Your task to perform on an android device: Go to sound settings Image 0: 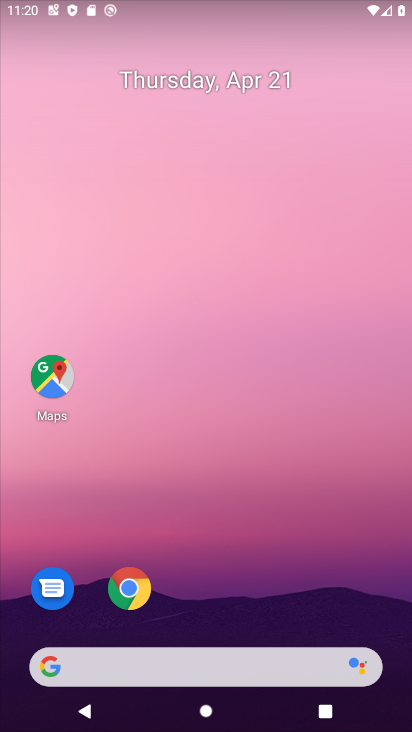
Step 0: drag from (190, 635) to (284, 94)
Your task to perform on an android device: Go to sound settings Image 1: 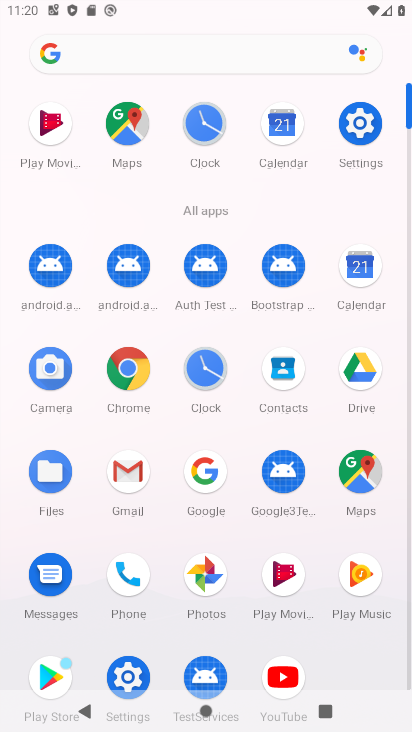
Step 1: click (354, 139)
Your task to perform on an android device: Go to sound settings Image 2: 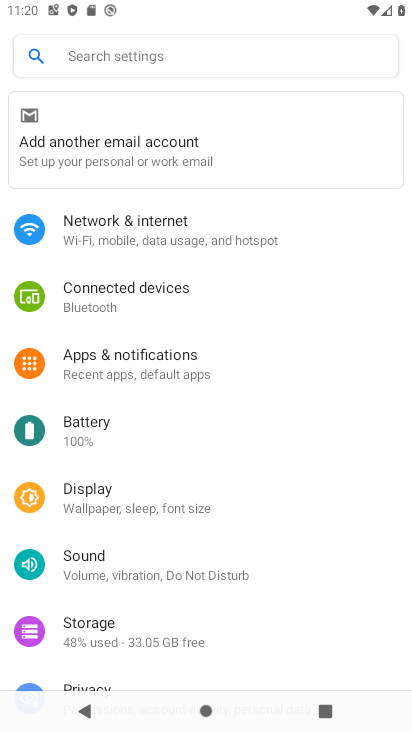
Step 2: click (111, 583)
Your task to perform on an android device: Go to sound settings Image 3: 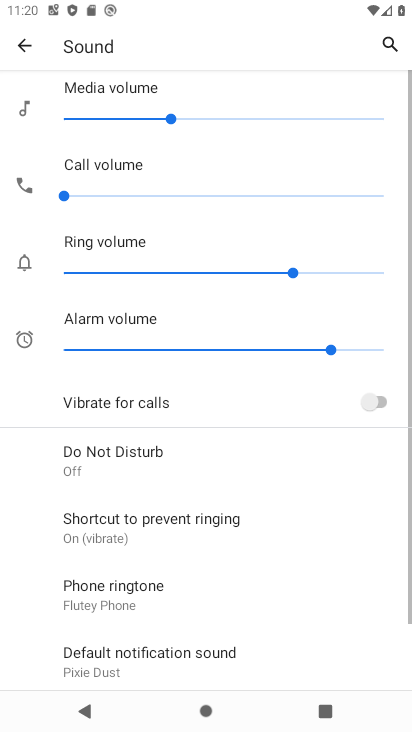
Step 3: task complete